Your task to perform on an android device: Open Reddit.com Image 0: 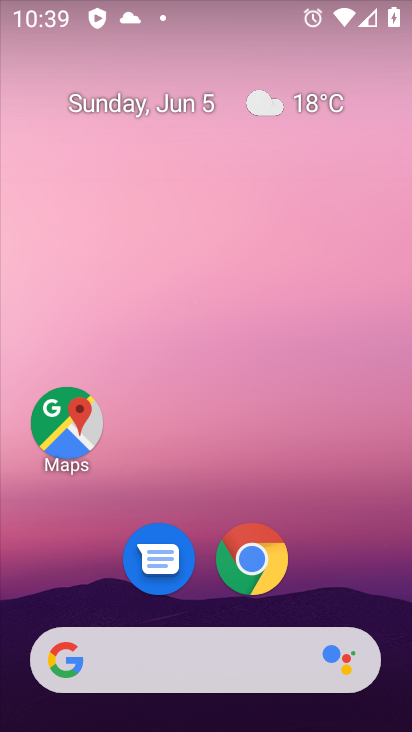
Step 0: click (254, 544)
Your task to perform on an android device: Open Reddit.com Image 1: 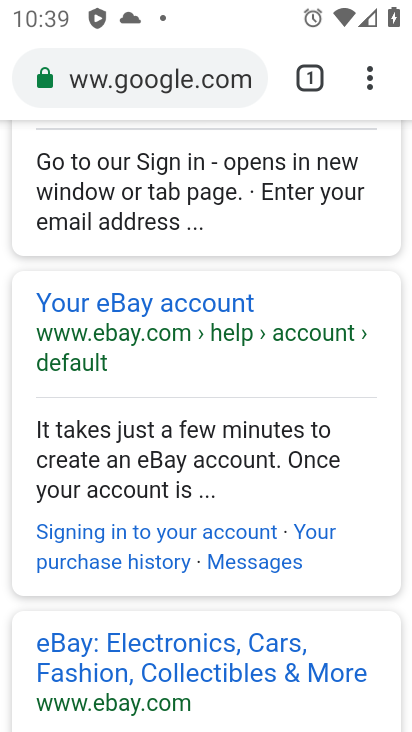
Step 1: click (253, 79)
Your task to perform on an android device: Open Reddit.com Image 2: 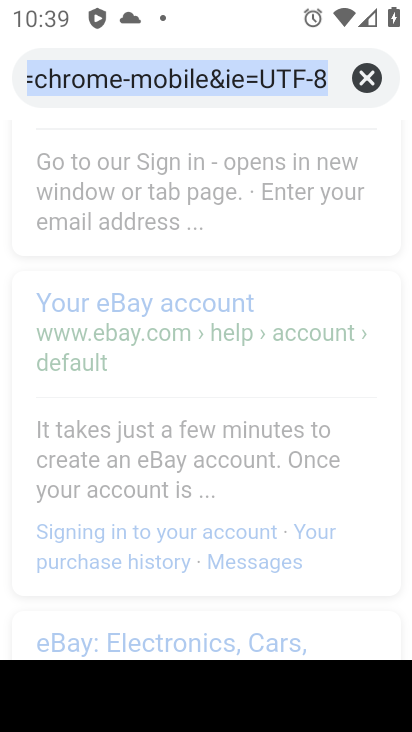
Step 2: click (364, 79)
Your task to perform on an android device: Open Reddit.com Image 3: 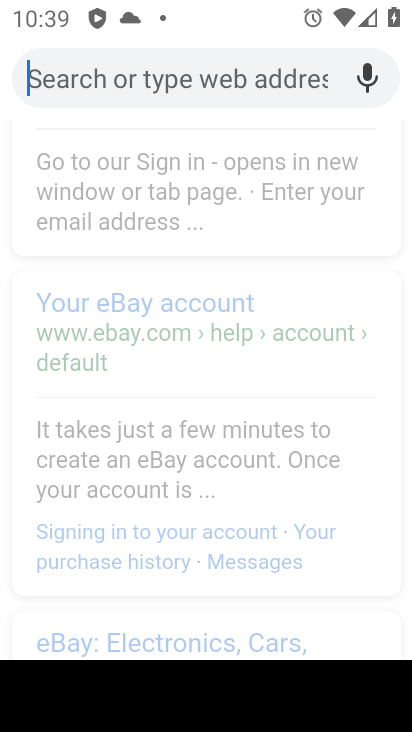
Step 3: type "Reddit.com"
Your task to perform on an android device: Open Reddit.com Image 4: 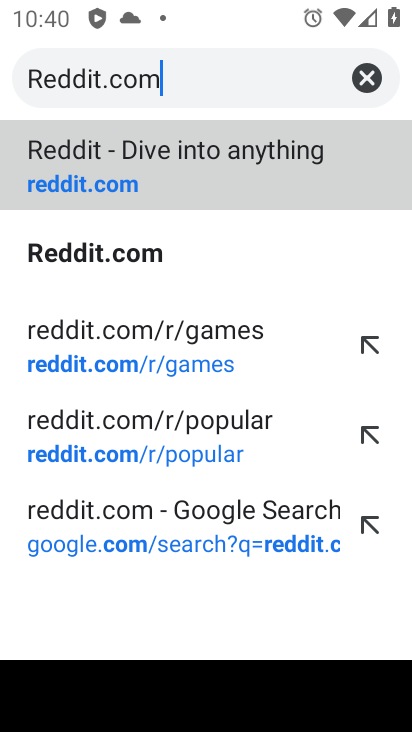
Step 4: click (125, 245)
Your task to perform on an android device: Open Reddit.com Image 5: 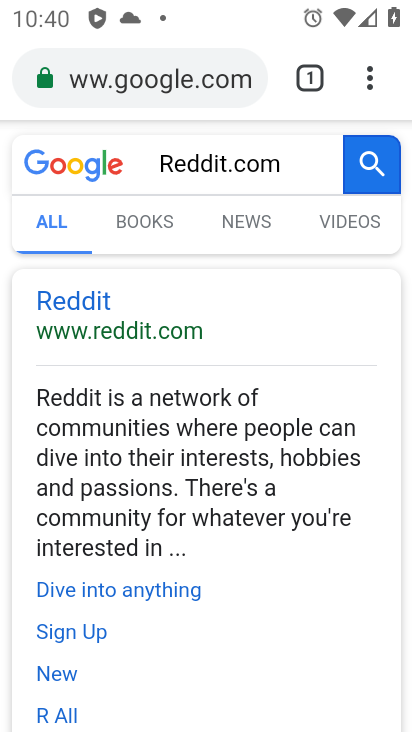
Step 5: task complete